Your task to perform on an android device: delete a single message in the gmail app Image 0: 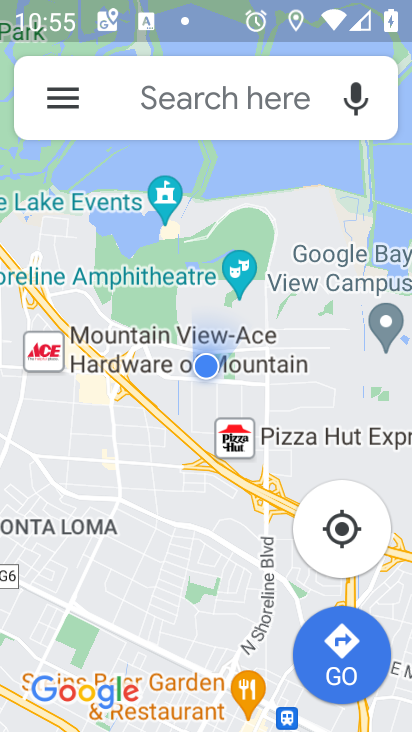
Step 0: press home button
Your task to perform on an android device: delete a single message in the gmail app Image 1: 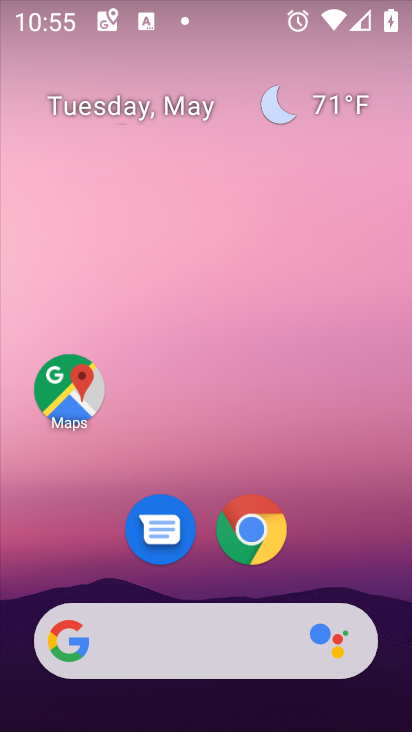
Step 1: drag from (180, 575) to (273, 21)
Your task to perform on an android device: delete a single message in the gmail app Image 2: 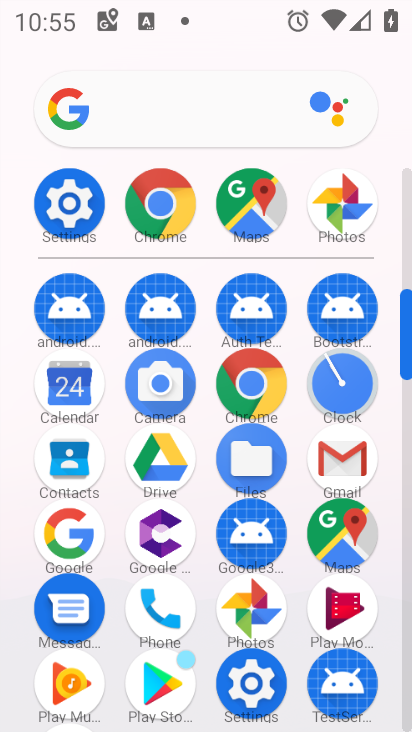
Step 2: click (352, 459)
Your task to perform on an android device: delete a single message in the gmail app Image 3: 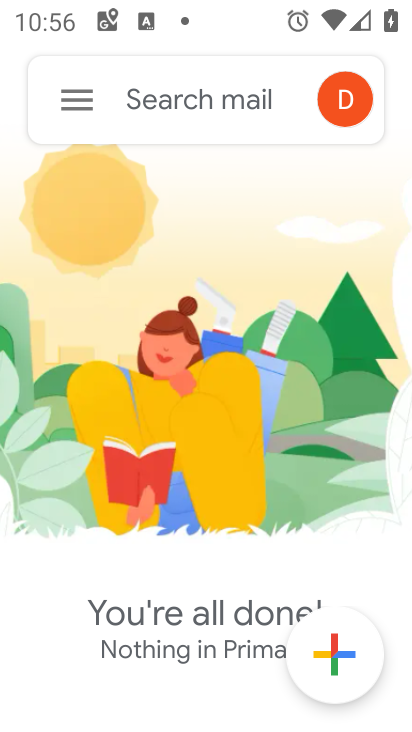
Step 3: click (71, 109)
Your task to perform on an android device: delete a single message in the gmail app Image 4: 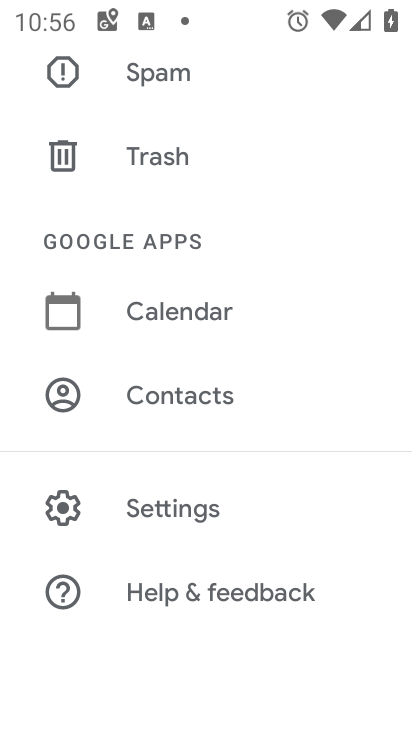
Step 4: drag from (219, 127) to (152, 485)
Your task to perform on an android device: delete a single message in the gmail app Image 5: 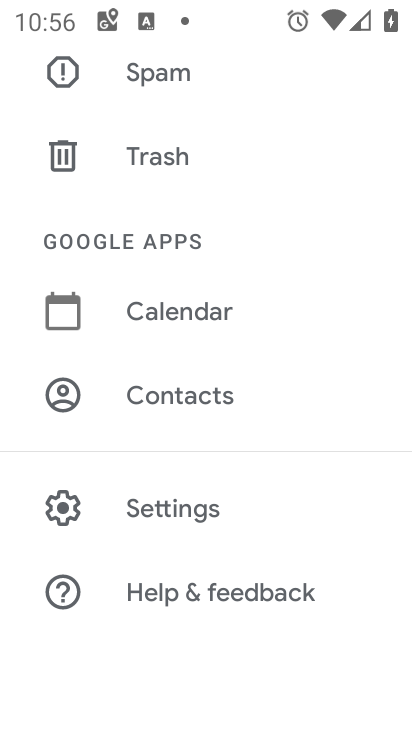
Step 5: drag from (183, 267) to (221, 557)
Your task to perform on an android device: delete a single message in the gmail app Image 6: 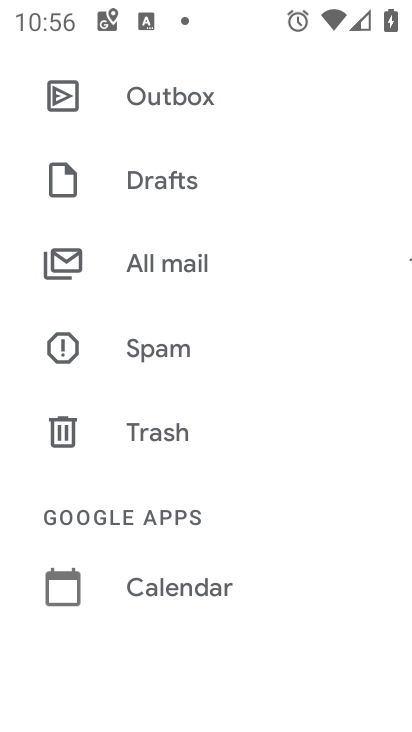
Step 6: click (187, 266)
Your task to perform on an android device: delete a single message in the gmail app Image 7: 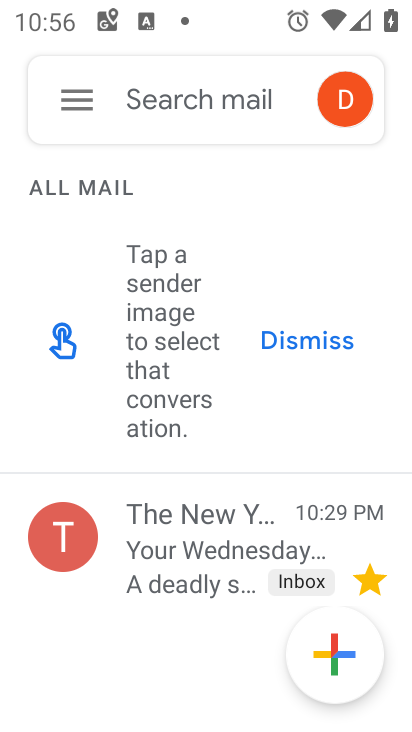
Step 7: click (189, 557)
Your task to perform on an android device: delete a single message in the gmail app Image 8: 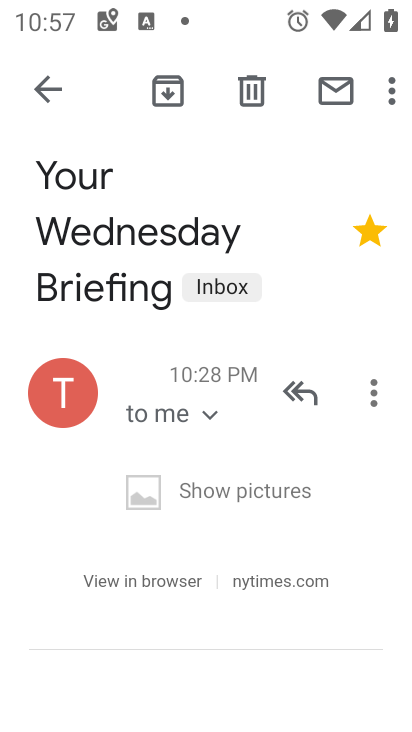
Step 8: click (258, 102)
Your task to perform on an android device: delete a single message in the gmail app Image 9: 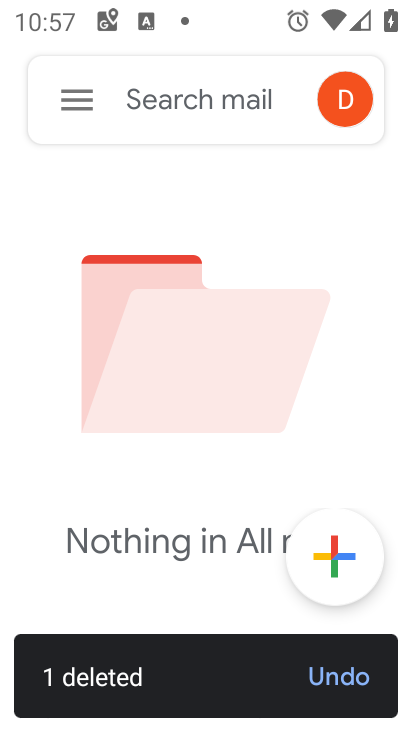
Step 9: task complete